Your task to perform on an android device: Open the phone app and click the voicemail tab. Image 0: 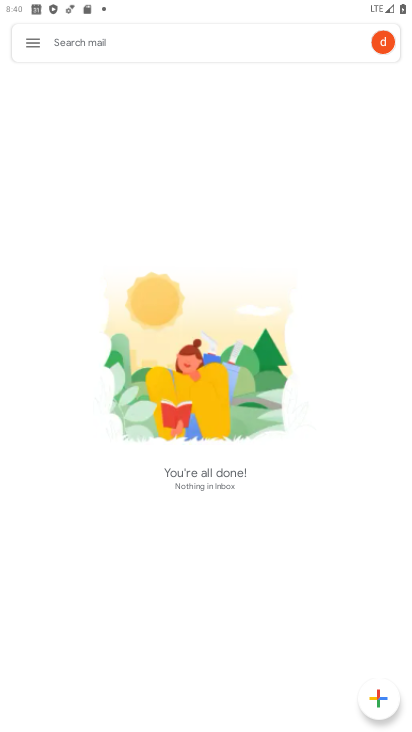
Step 0: press home button
Your task to perform on an android device: Open the phone app and click the voicemail tab. Image 1: 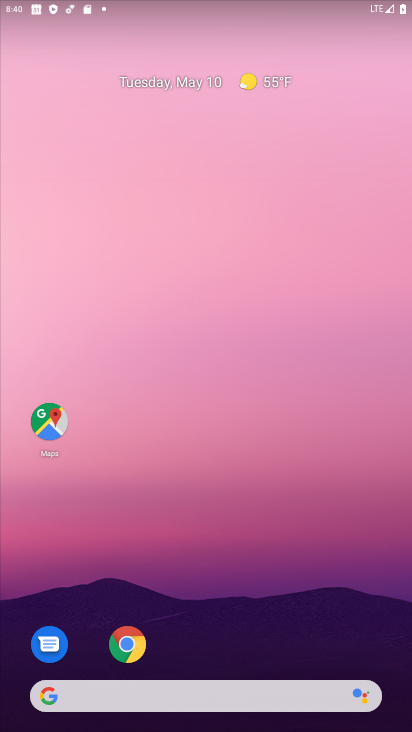
Step 1: drag from (211, 637) to (221, 179)
Your task to perform on an android device: Open the phone app and click the voicemail tab. Image 2: 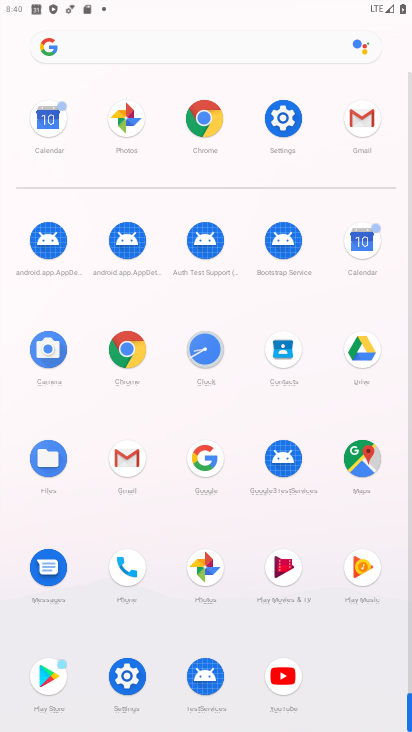
Step 2: click (117, 569)
Your task to perform on an android device: Open the phone app and click the voicemail tab. Image 3: 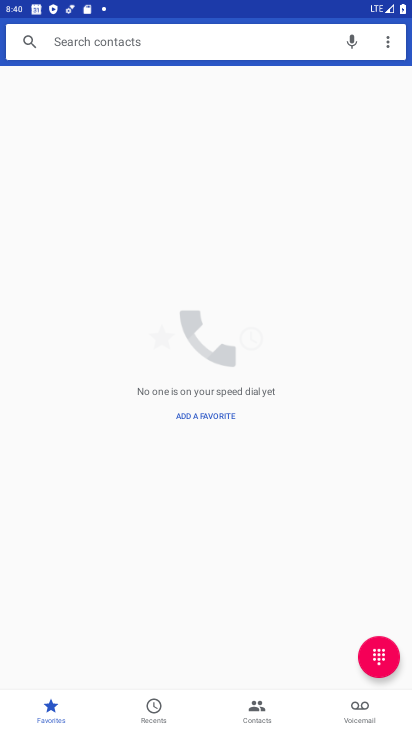
Step 3: click (363, 719)
Your task to perform on an android device: Open the phone app and click the voicemail tab. Image 4: 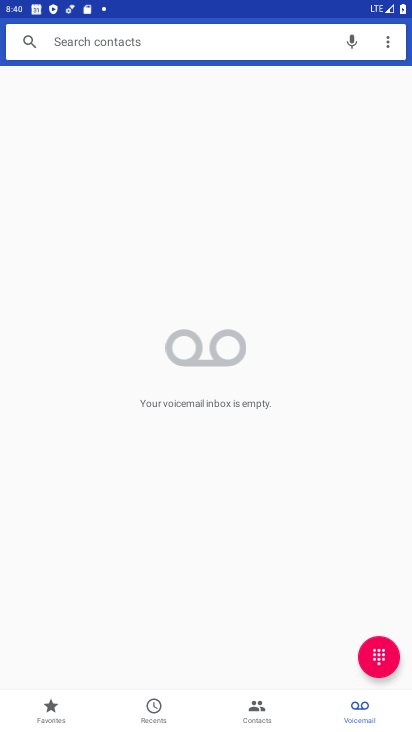
Step 4: task complete